Your task to perform on an android device: Do I have any events today? Image 0: 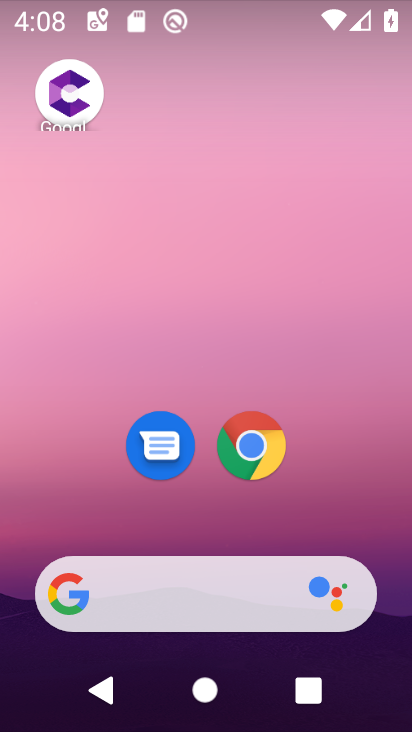
Step 0: drag from (231, 514) to (259, 3)
Your task to perform on an android device: Do I have any events today? Image 1: 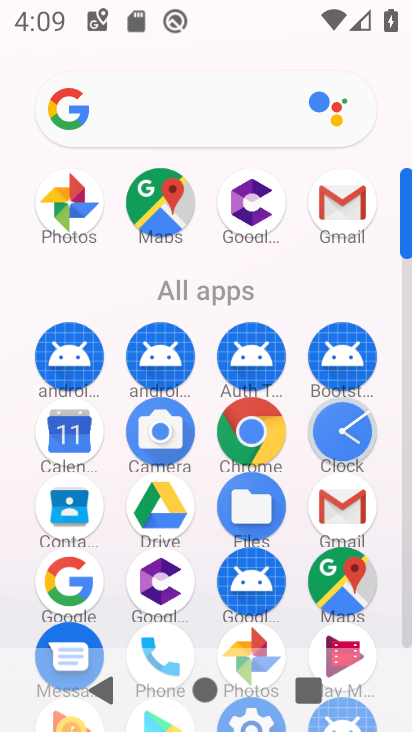
Step 1: click (71, 430)
Your task to perform on an android device: Do I have any events today? Image 2: 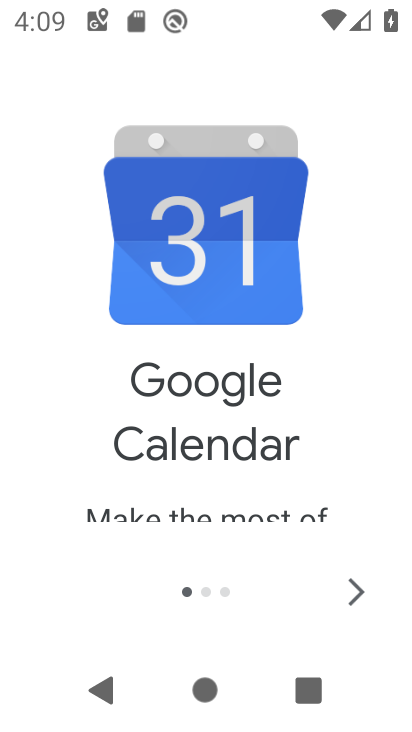
Step 2: click (360, 591)
Your task to perform on an android device: Do I have any events today? Image 3: 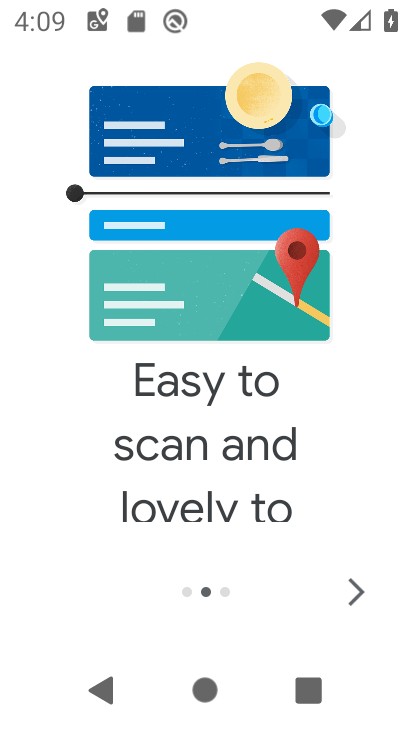
Step 3: click (344, 595)
Your task to perform on an android device: Do I have any events today? Image 4: 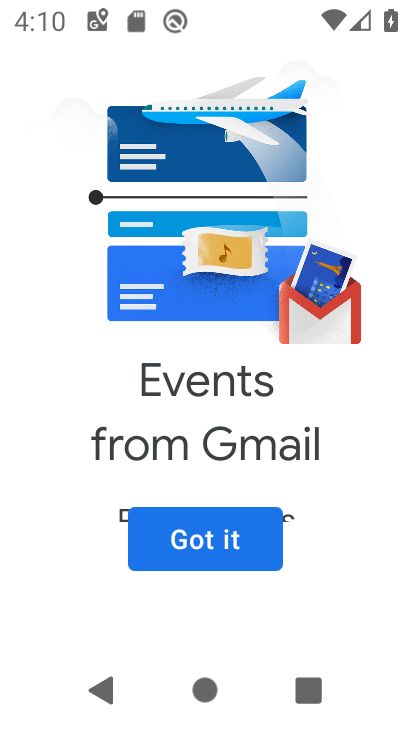
Step 4: click (245, 541)
Your task to perform on an android device: Do I have any events today? Image 5: 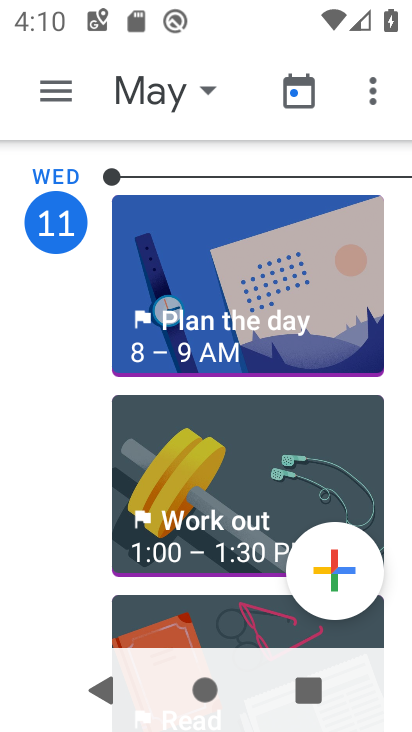
Step 5: click (61, 93)
Your task to perform on an android device: Do I have any events today? Image 6: 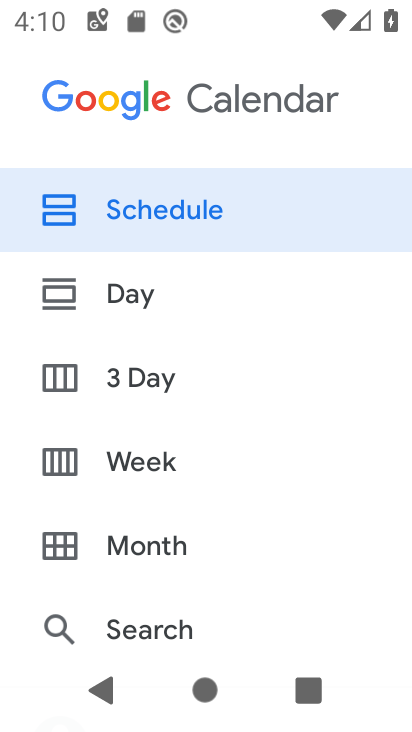
Step 6: click (124, 309)
Your task to perform on an android device: Do I have any events today? Image 7: 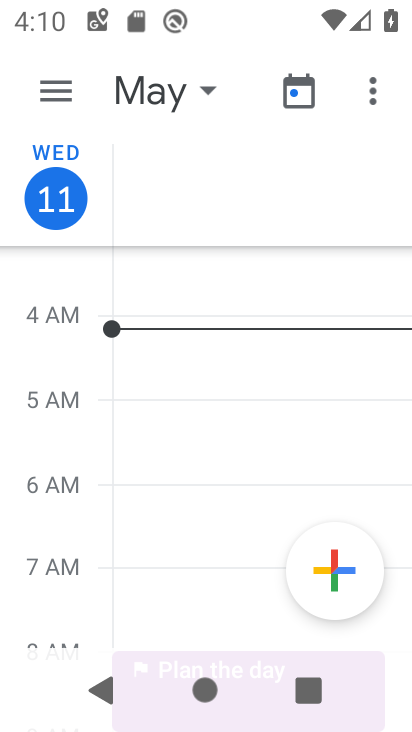
Step 7: drag from (280, 450) to (280, 231)
Your task to perform on an android device: Do I have any events today? Image 8: 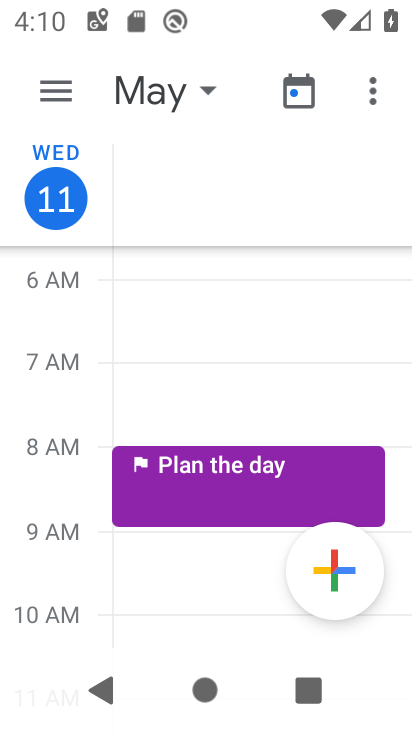
Step 8: click (55, 87)
Your task to perform on an android device: Do I have any events today? Image 9: 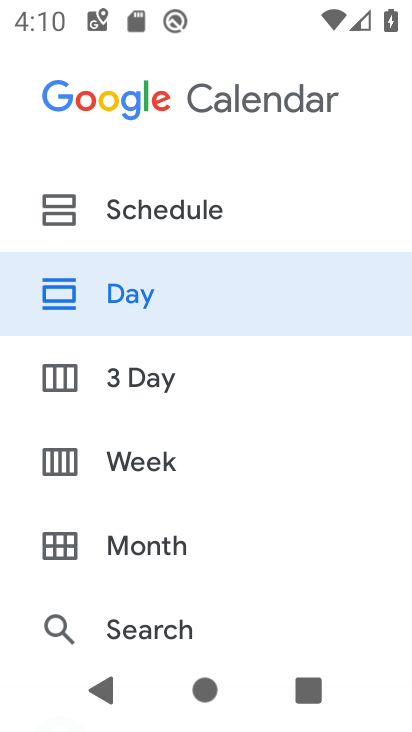
Step 9: drag from (214, 504) to (235, 93)
Your task to perform on an android device: Do I have any events today? Image 10: 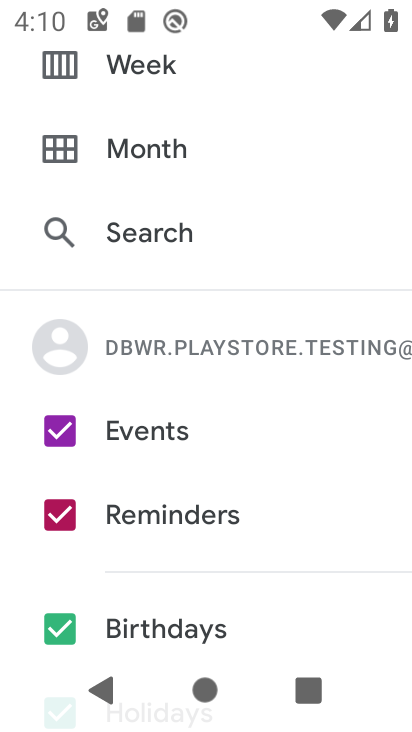
Step 10: click (168, 512)
Your task to perform on an android device: Do I have any events today? Image 11: 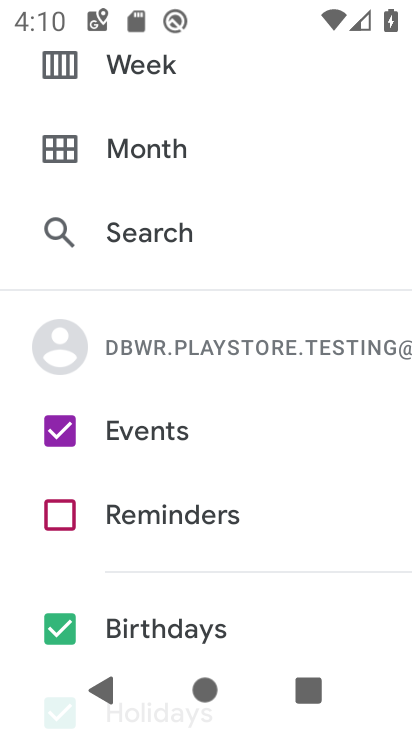
Step 11: drag from (225, 537) to (226, 201)
Your task to perform on an android device: Do I have any events today? Image 12: 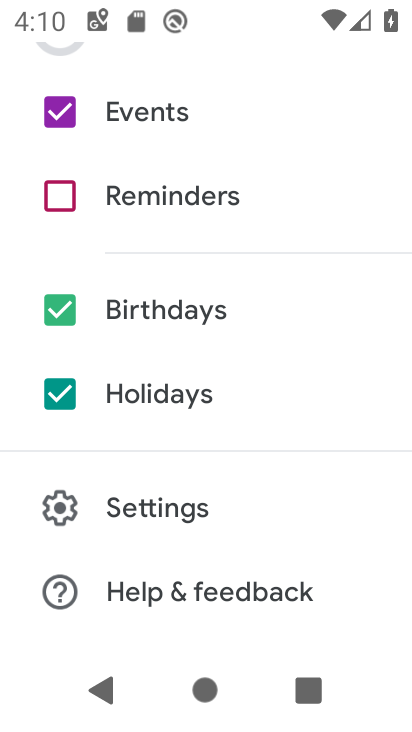
Step 12: click (152, 302)
Your task to perform on an android device: Do I have any events today? Image 13: 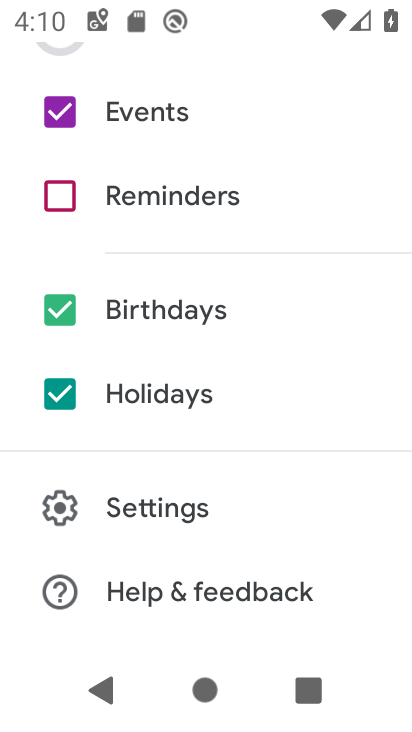
Step 13: click (126, 403)
Your task to perform on an android device: Do I have any events today? Image 14: 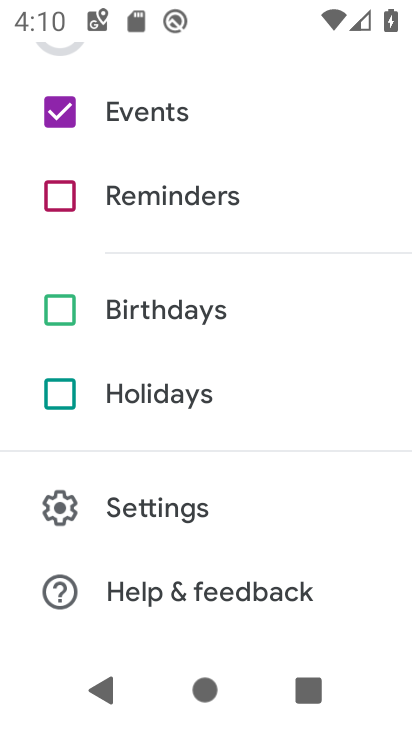
Step 14: drag from (191, 253) to (196, 547)
Your task to perform on an android device: Do I have any events today? Image 15: 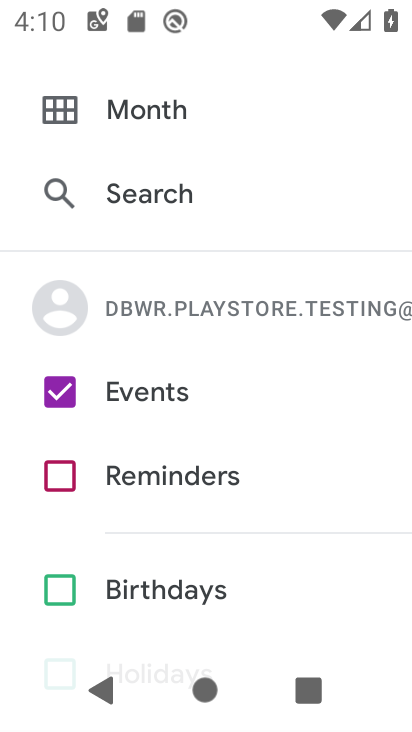
Step 15: drag from (165, 112) to (169, 484)
Your task to perform on an android device: Do I have any events today? Image 16: 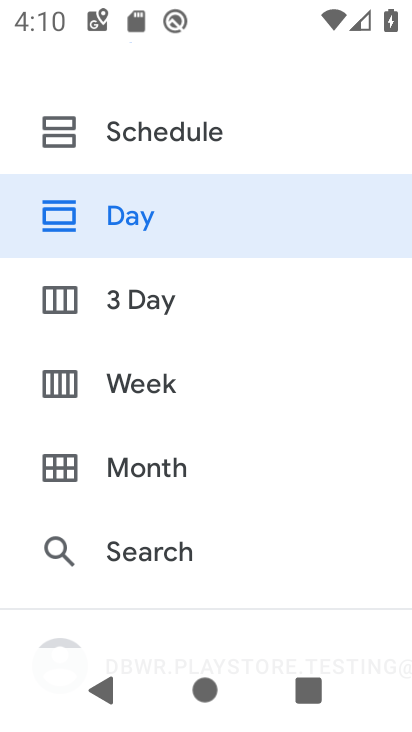
Step 16: click (186, 233)
Your task to perform on an android device: Do I have any events today? Image 17: 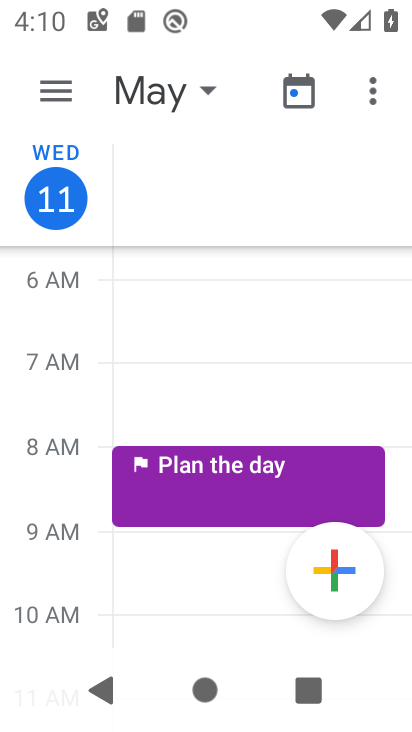
Step 17: task complete